Your task to perform on an android device: toggle sleep mode Image 0: 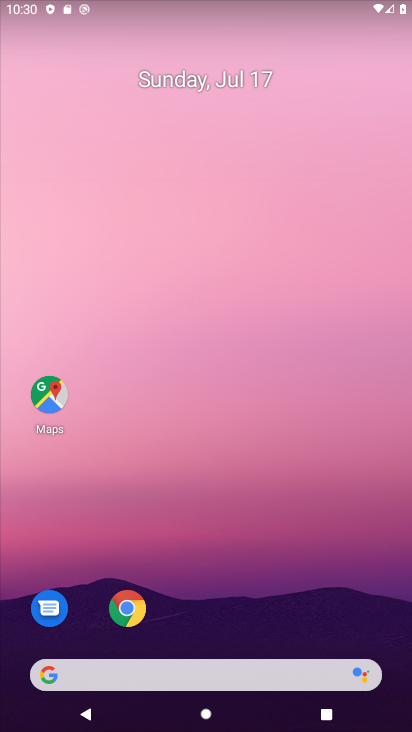
Step 0: drag from (261, 608) to (244, 93)
Your task to perform on an android device: toggle sleep mode Image 1: 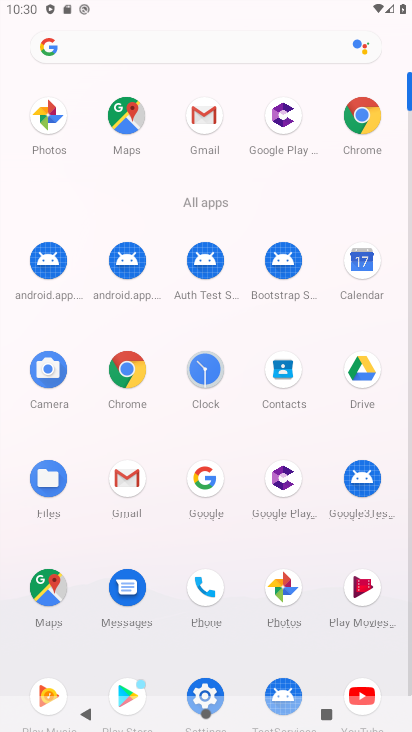
Step 1: click (206, 684)
Your task to perform on an android device: toggle sleep mode Image 2: 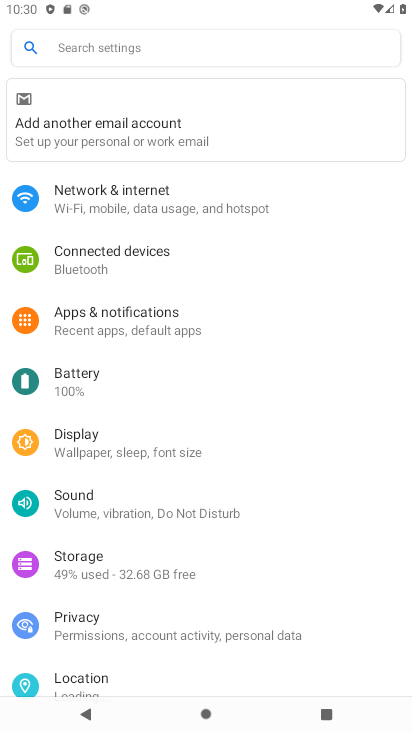
Step 2: click (211, 453)
Your task to perform on an android device: toggle sleep mode Image 3: 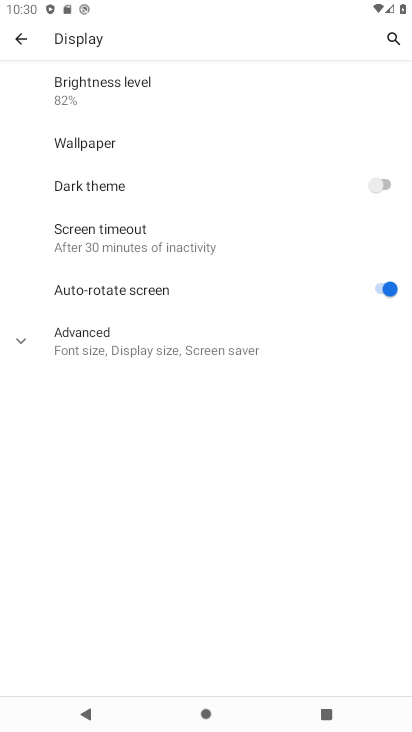
Step 3: click (204, 357)
Your task to perform on an android device: toggle sleep mode Image 4: 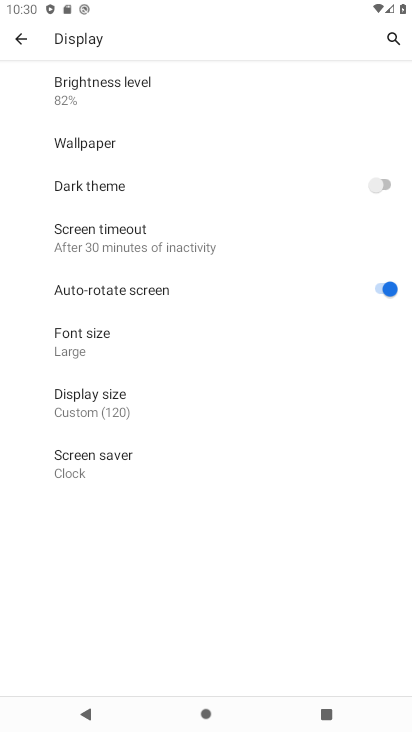
Step 4: task complete